Your task to perform on an android device: Open Google Maps and go to "Timeline" Image 0: 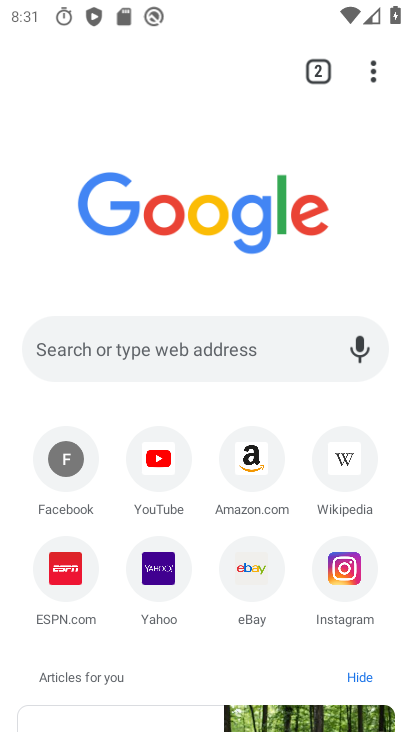
Step 0: drag from (359, 587) to (284, 152)
Your task to perform on an android device: Open Google Maps and go to "Timeline" Image 1: 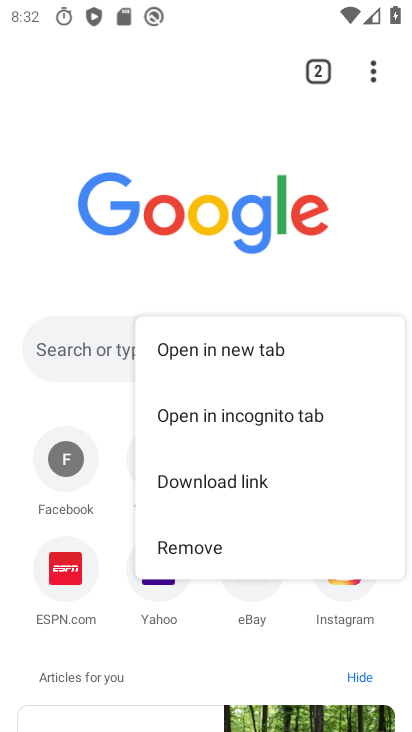
Step 1: press home button
Your task to perform on an android device: Open Google Maps and go to "Timeline" Image 2: 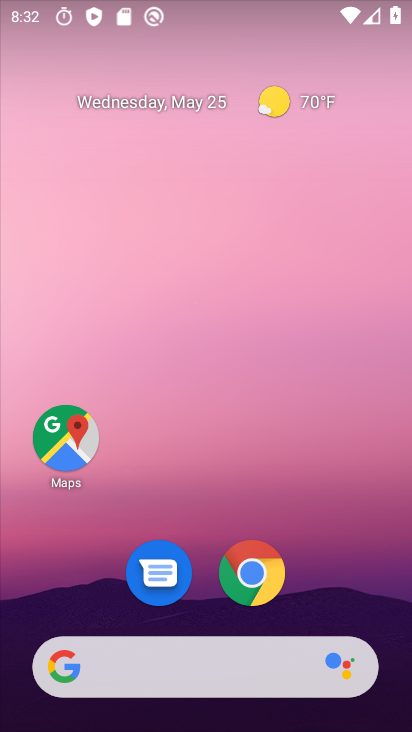
Step 2: click (66, 413)
Your task to perform on an android device: Open Google Maps and go to "Timeline" Image 3: 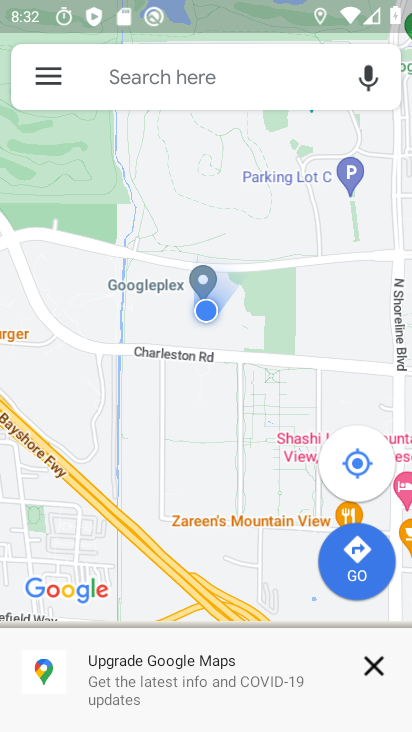
Step 3: click (53, 87)
Your task to perform on an android device: Open Google Maps and go to "Timeline" Image 4: 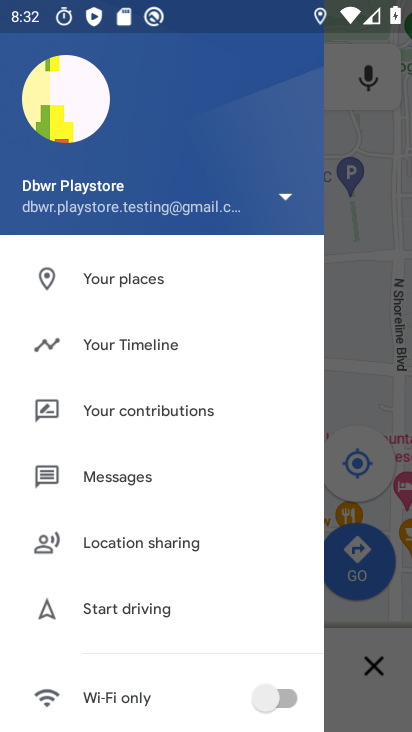
Step 4: click (144, 345)
Your task to perform on an android device: Open Google Maps and go to "Timeline" Image 5: 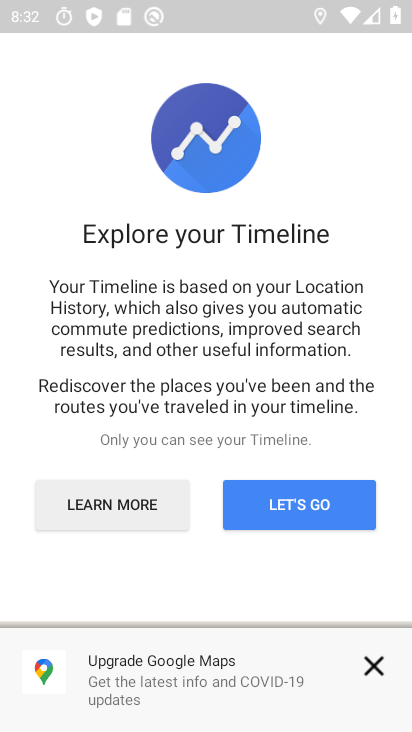
Step 5: click (314, 509)
Your task to perform on an android device: Open Google Maps and go to "Timeline" Image 6: 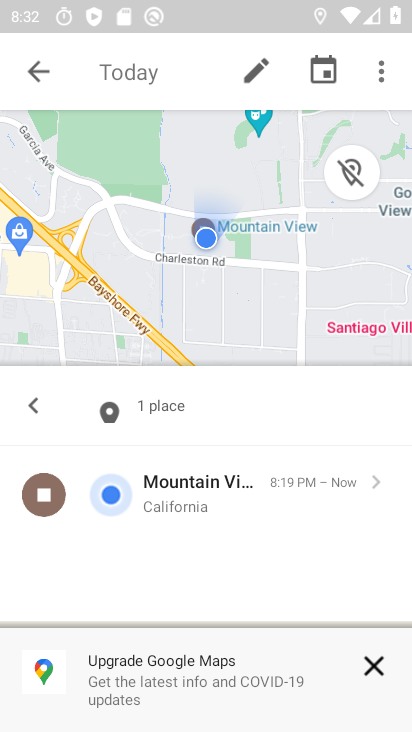
Step 6: task complete